Your task to perform on an android device: change your default location settings in chrome Image 0: 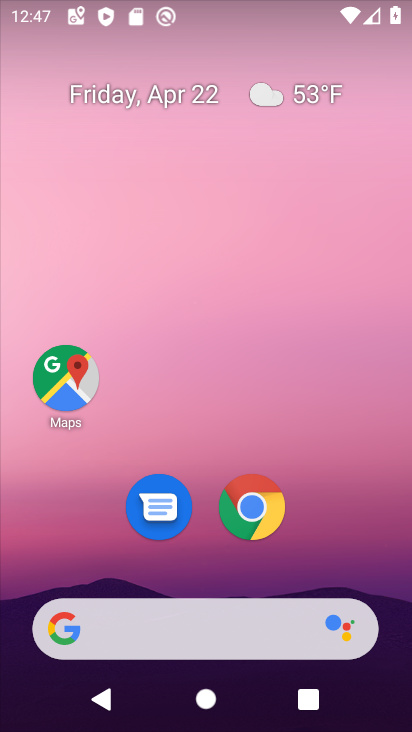
Step 0: click (262, 498)
Your task to perform on an android device: change your default location settings in chrome Image 1: 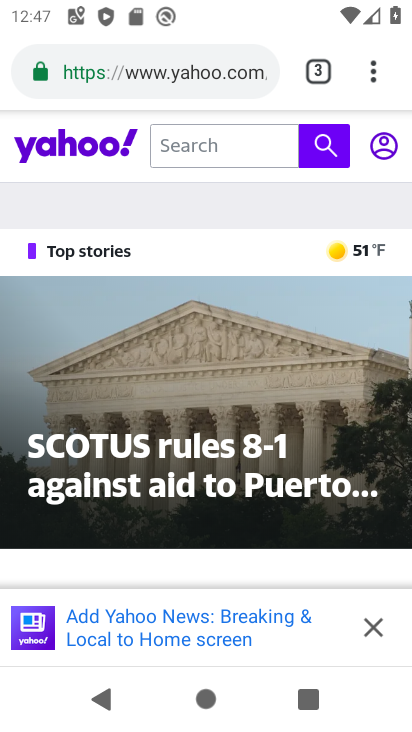
Step 1: drag from (373, 77) to (123, 496)
Your task to perform on an android device: change your default location settings in chrome Image 2: 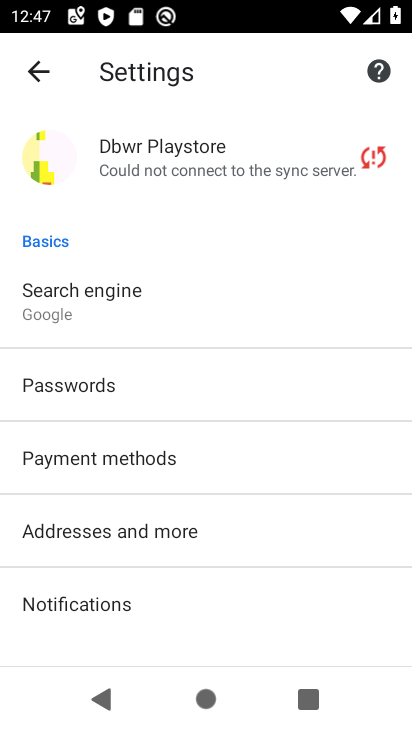
Step 2: drag from (113, 610) to (136, 169)
Your task to perform on an android device: change your default location settings in chrome Image 3: 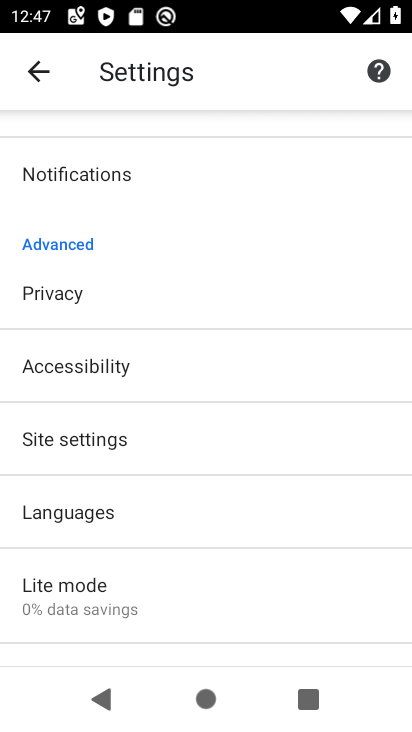
Step 3: click (68, 442)
Your task to perform on an android device: change your default location settings in chrome Image 4: 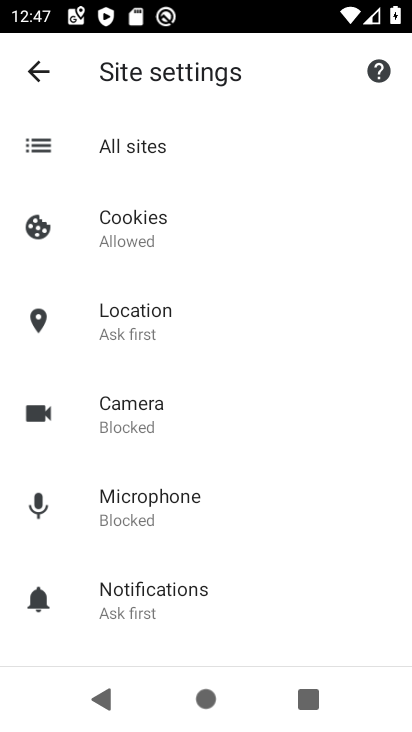
Step 4: click (122, 339)
Your task to perform on an android device: change your default location settings in chrome Image 5: 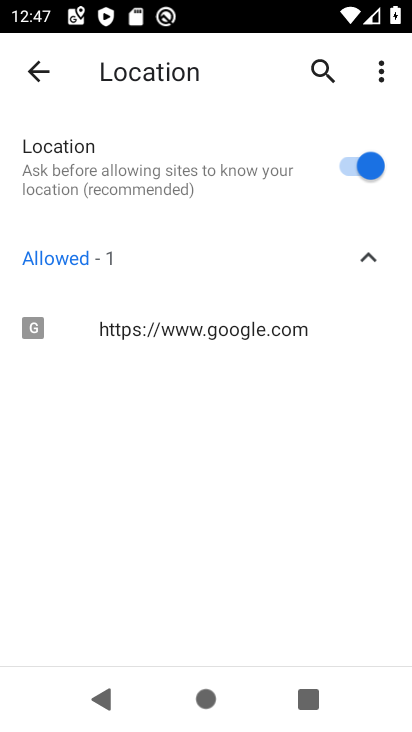
Step 5: click (349, 173)
Your task to perform on an android device: change your default location settings in chrome Image 6: 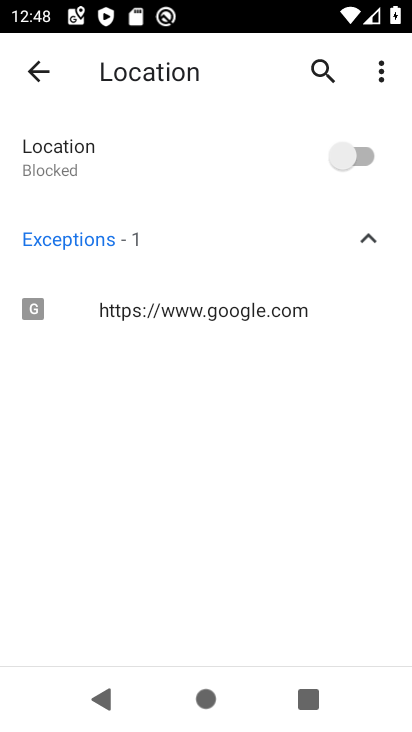
Step 6: task complete